Your task to perform on an android device: Go to internet settings Image 0: 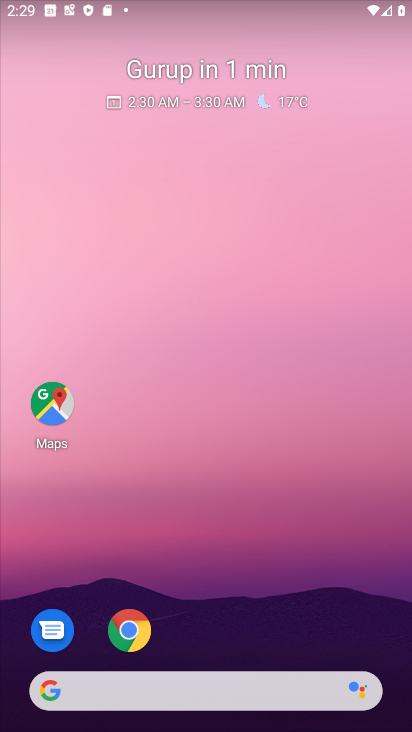
Step 0: drag from (240, 613) to (224, 0)
Your task to perform on an android device: Go to internet settings Image 1: 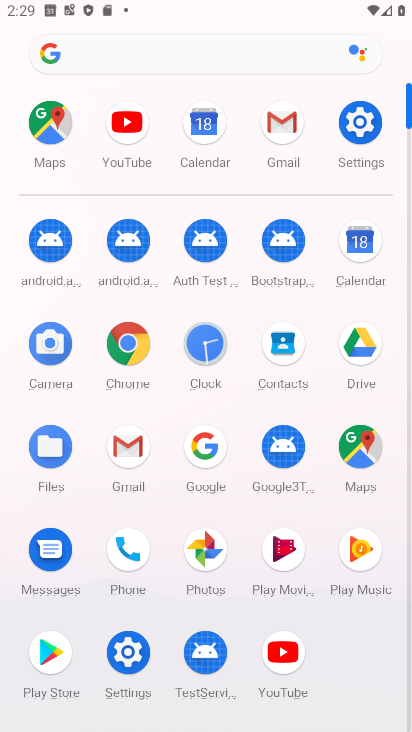
Step 1: click (360, 119)
Your task to perform on an android device: Go to internet settings Image 2: 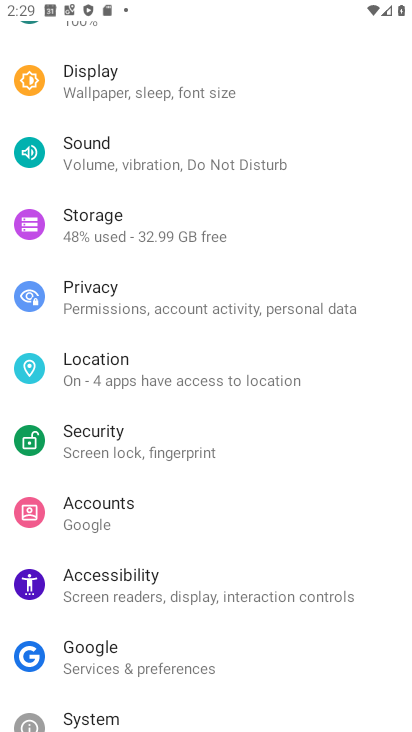
Step 2: drag from (243, 232) to (243, 644)
Your task to perform on an android device: Go to internet settings Image 3: 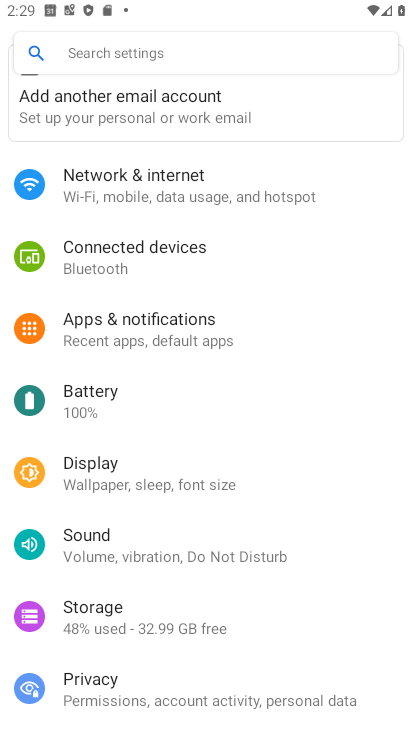
Step 3: click (241, 176)
Your task to perform on an android device: Go to internet settings Image 4: 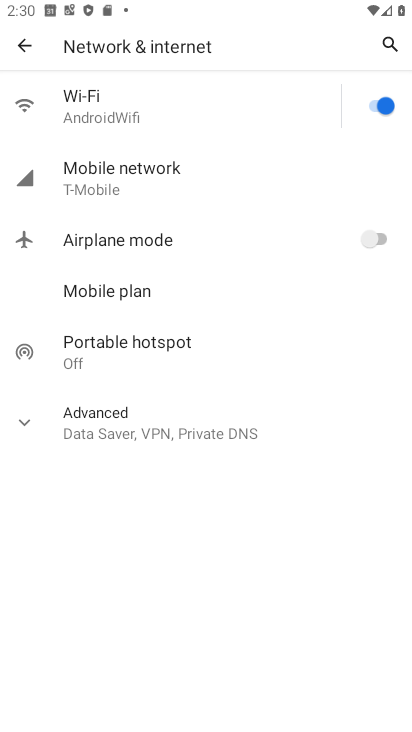
Step 4: task complete